Your task to perform on an android device: empty trash in google photos Image 0: 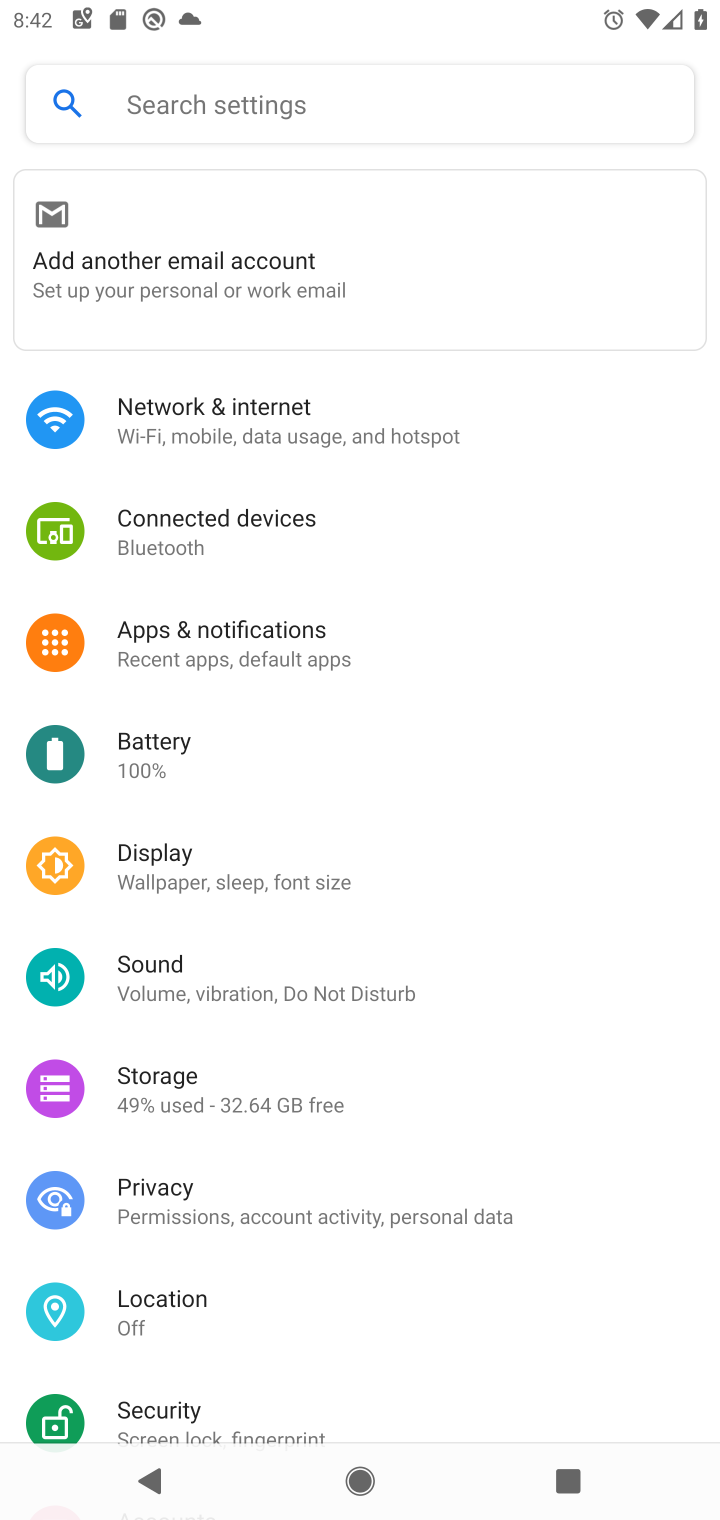
Step 0: press home button
Your task to perform on an android device: empty trash in google photos Image 1: 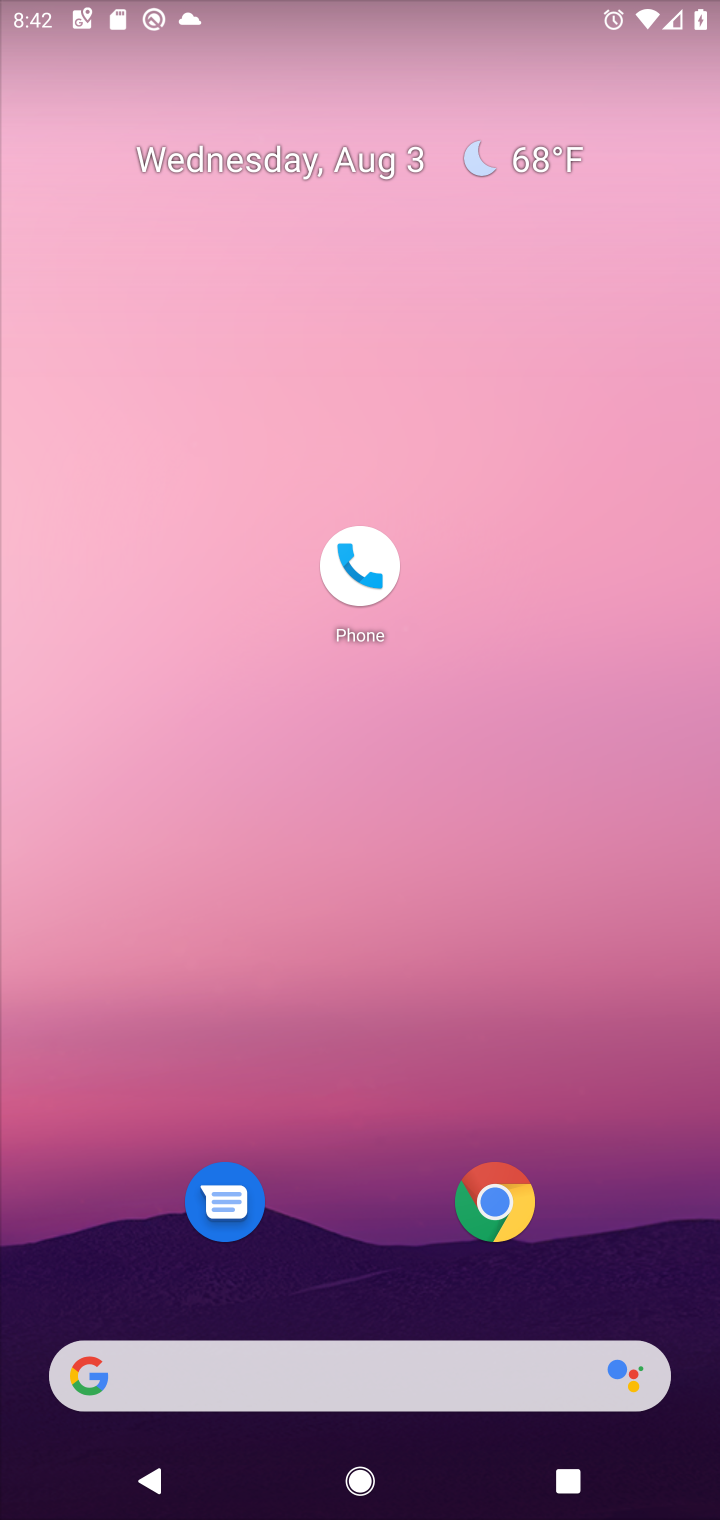
Step 1: drag from (262, 1393) to (584, 68)
Your task to perform on an android device: empty trash in google photos Image 2: 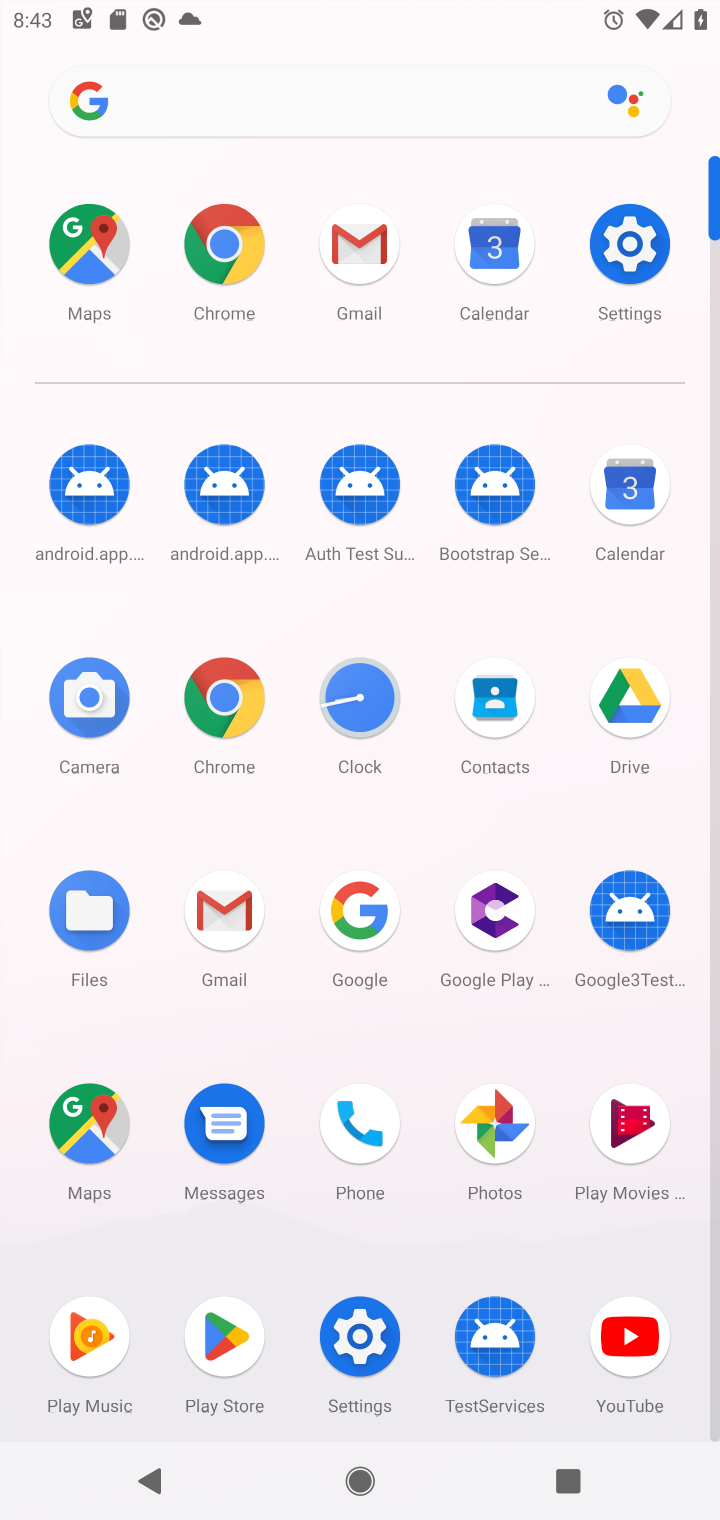
Step 2: click (493, 1121)
Your task to perform on an android device: empty trash in google photos Image 3: 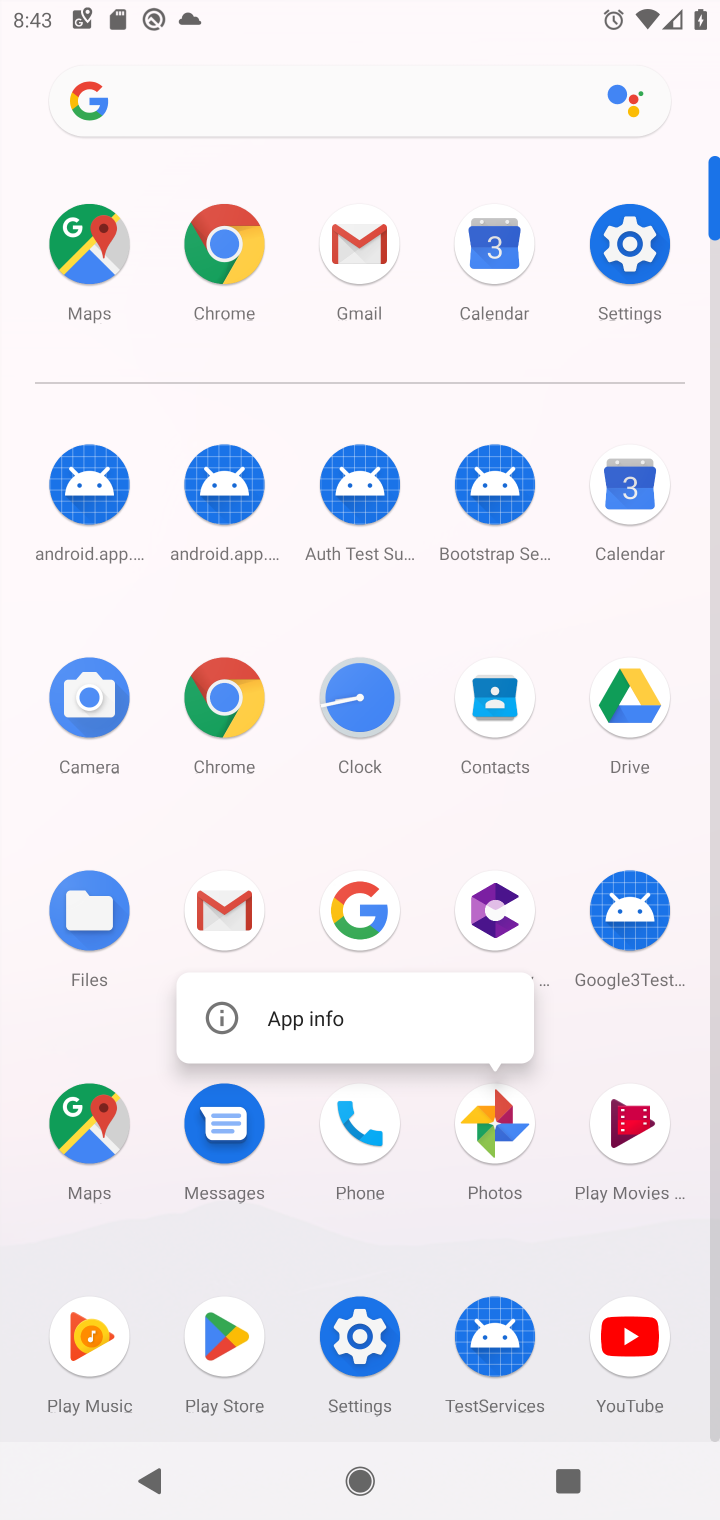
Step 3: click (493, 1121)
Your task to perform on an android device: empty trash in google photos Image 4: 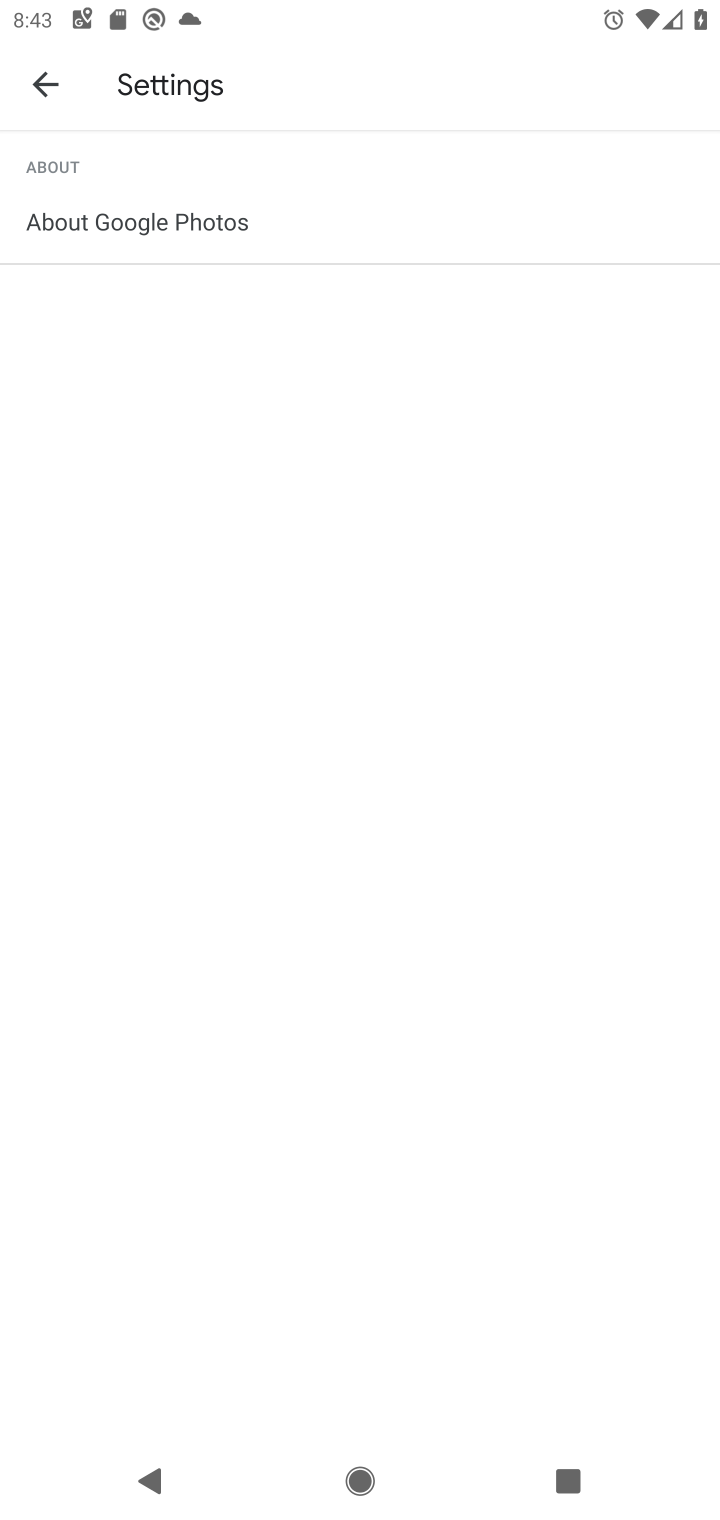
Step 4: press back button
Your task to perform on an android device: empty trash in google photos Image 5: 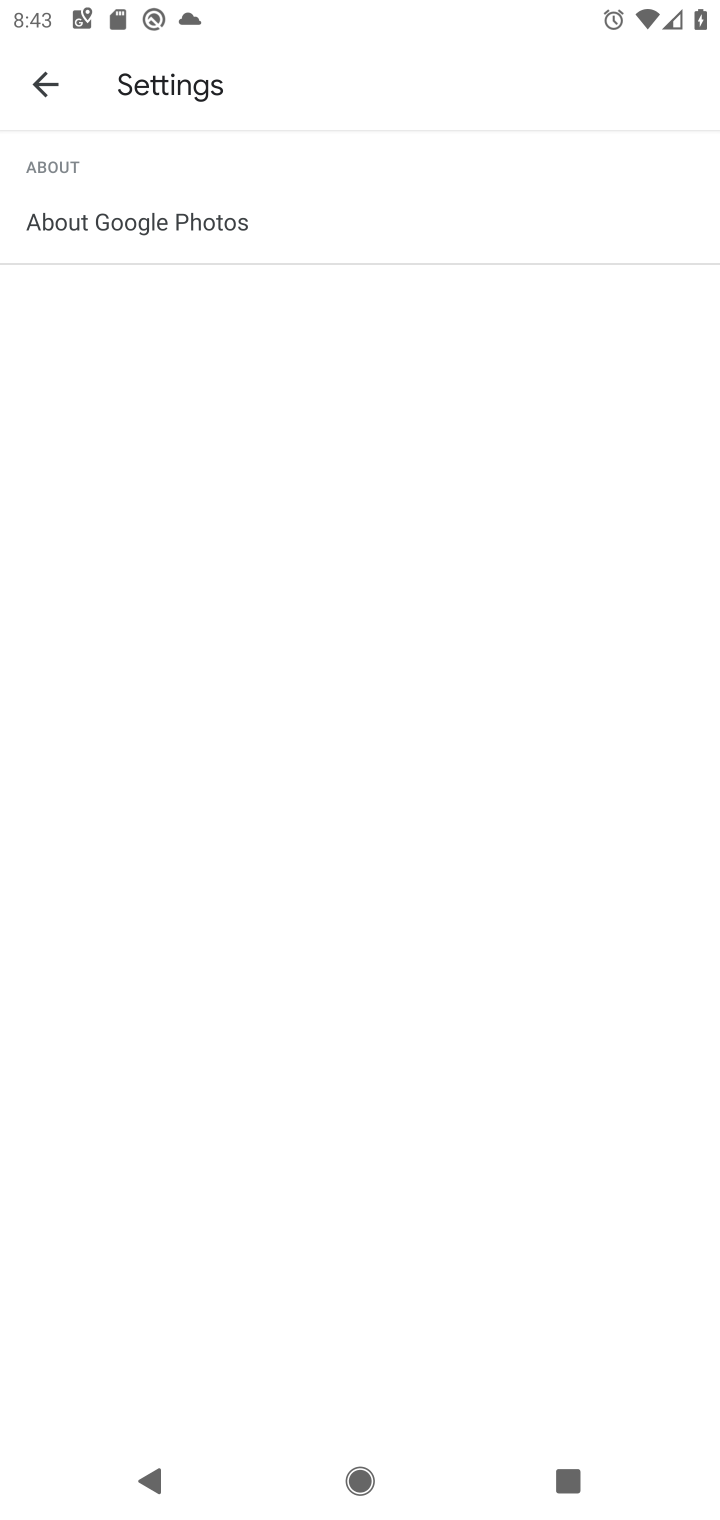
Step 5: press back button
Your task to perform on an android device: empty trash in google photos Image 6: 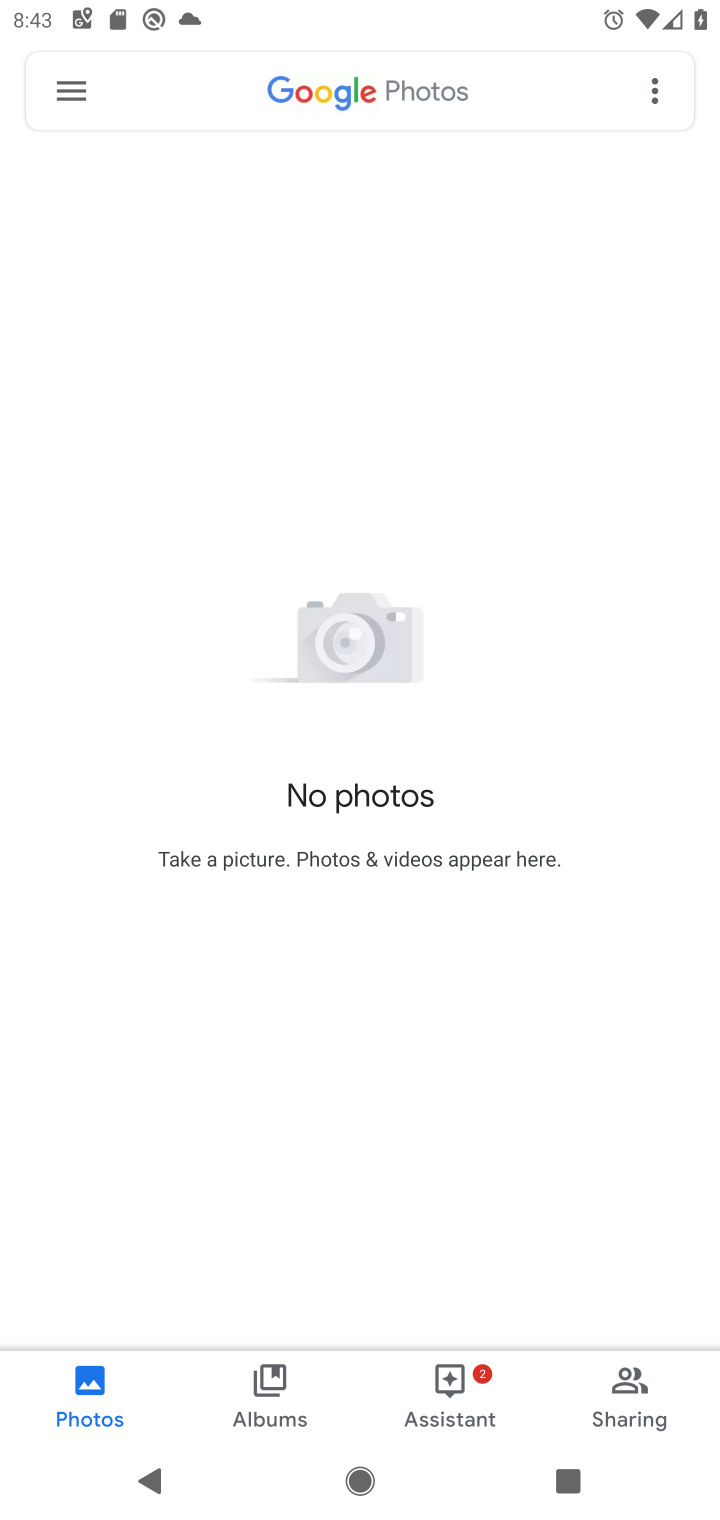
Step 6: click (64, 91)
Your task to perform on an android device: empty trash in google photos Image 7: 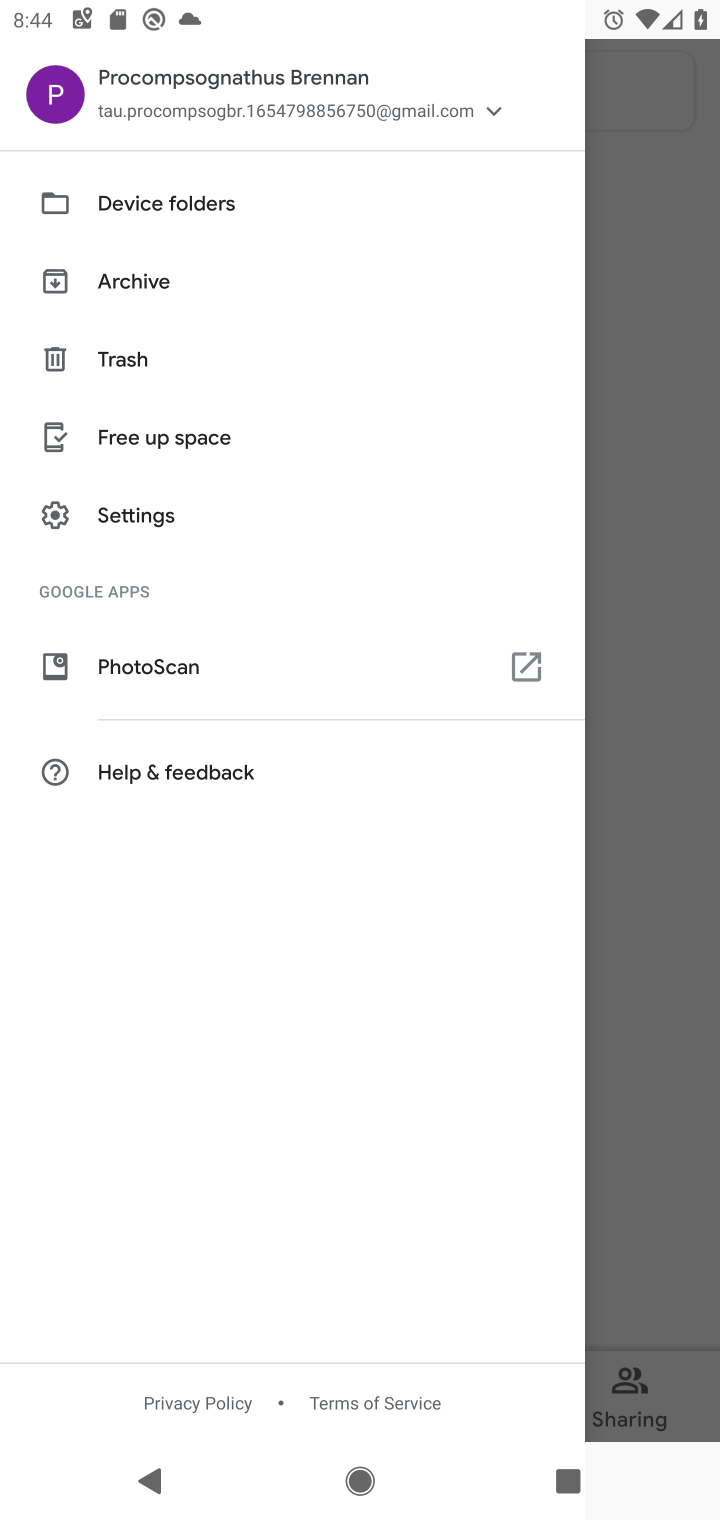
Step 7: click (114, 361)
Your task to perform on an android device: empty trash in google photos Image 8: 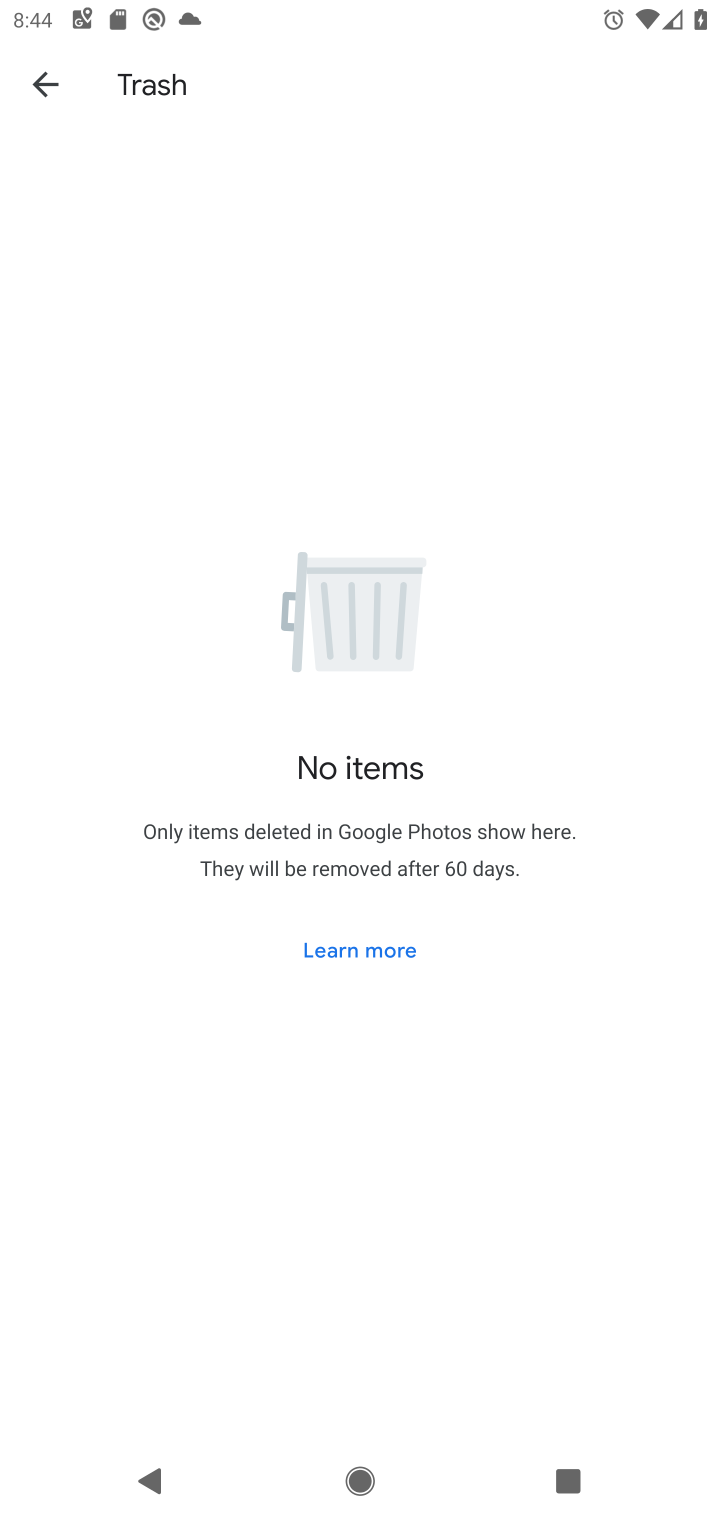
Step 8: task complete